Your task to perform on an android device: toggle improve location accuracy Image 0: 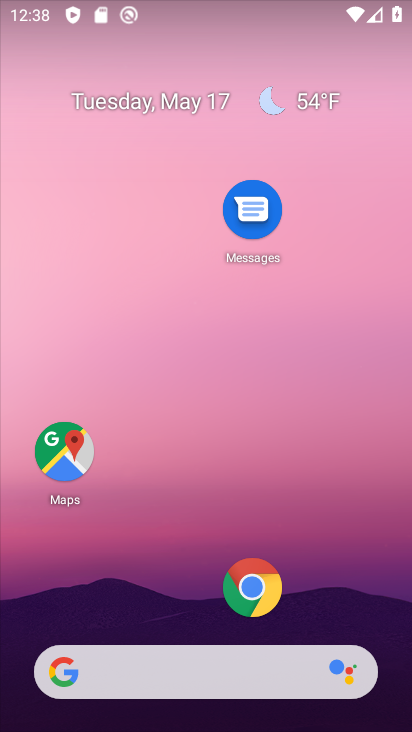
Step 0: drag from (161, 598) to (192, 49)
Your task to perform on an android device: toggle improve location accuracy Image 1: 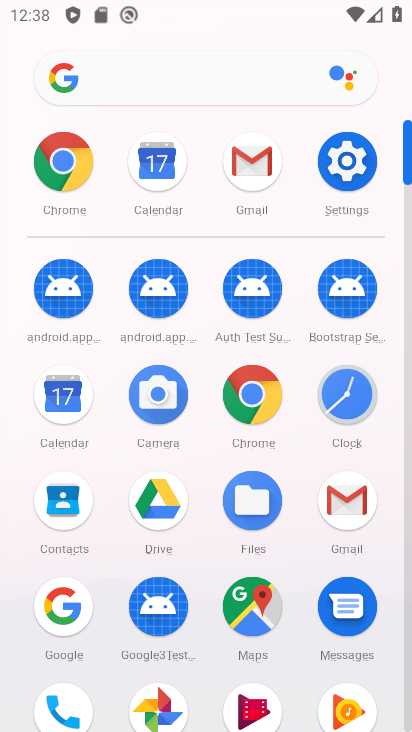
Step 1: click (355, 173)
Your task to perform on an android device: toggle improve location accuracy Image 2: 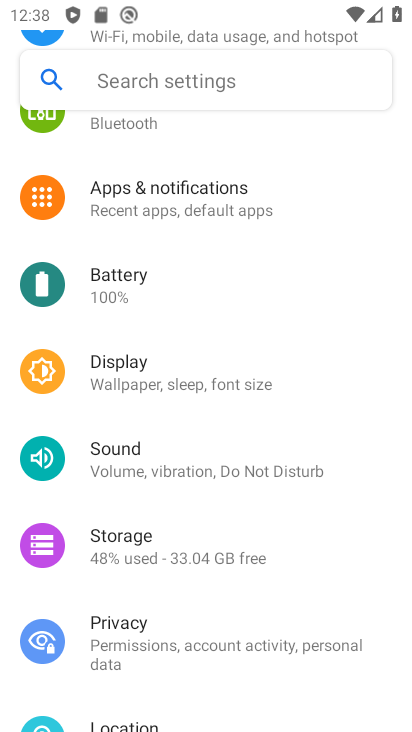
Step 2: drag from (165, 698) to (220, 493)
Your task to perform on an android device: toggle improve location accuracy Image 3: 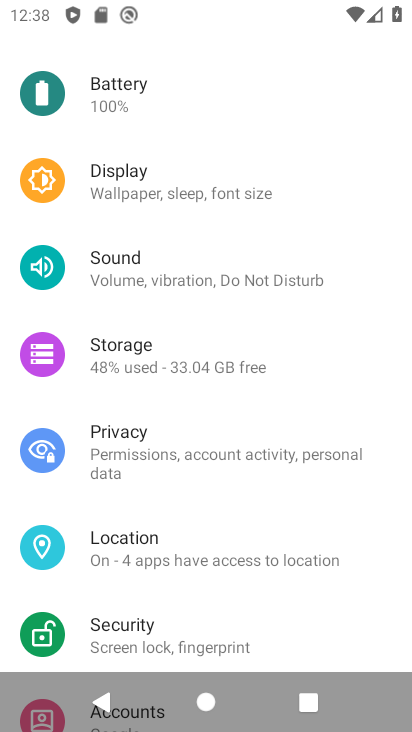
Step 3: click (182, 566)
Your task to perform on an android device: toggle improve location accuracy Image 4: 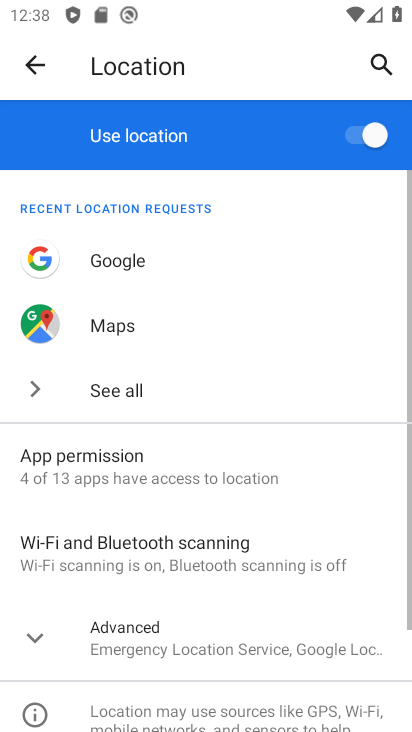
Step 4: drag from (208, 576) to (220, 356)
Your task to perform on an android device: toggle improve location accuracy Image 5: 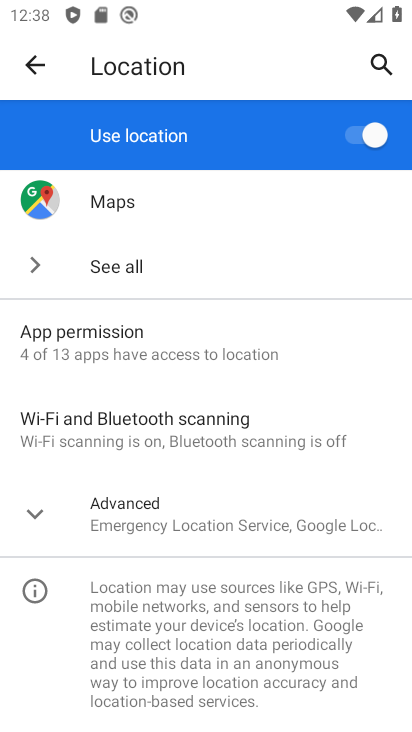
Step 5: click (153, 515)
Your task to perform on an android device: toggle improve location accuracy Image 6: 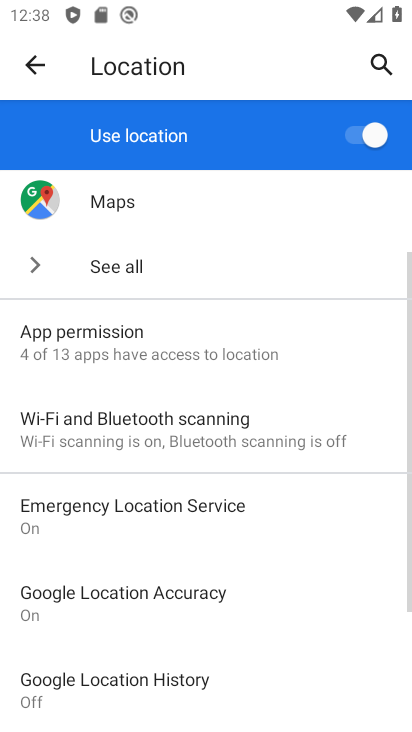
Step 6: drag from (145, 601) to (173, 510)
Your task to perform on an android device: toggle improve location accuracy Image 7: 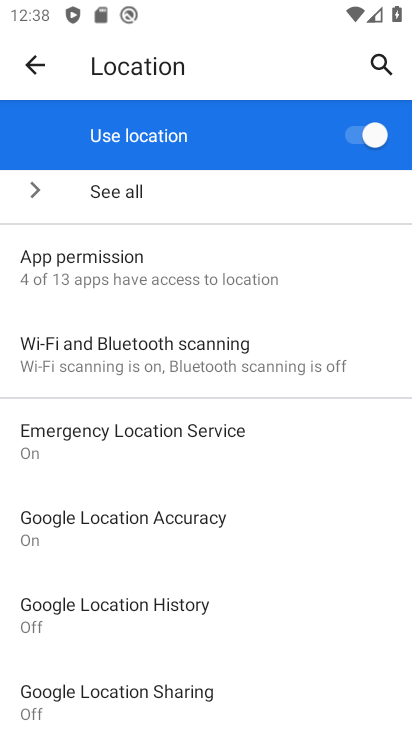
Step 7: click (166, 521)
Your task to perform on an android device: toggle improve location accuracy Image 8: 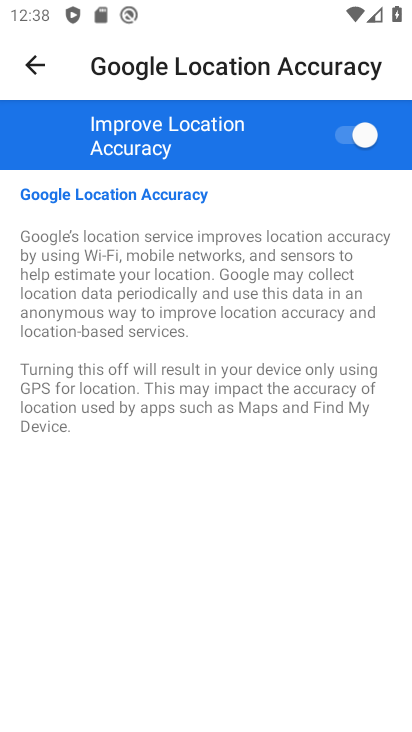
Step 8: click (327, 147)
Your task to perform on an android device: toggle improve location accuracy Image 9: 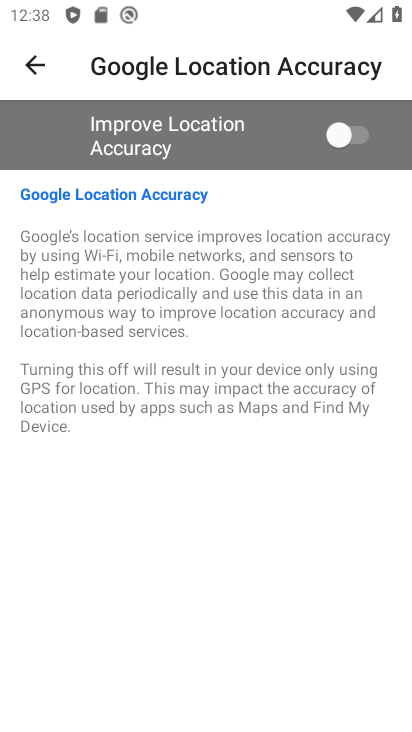
Step 9: task complete